Your task to perform on an android device: Search for sushi restaurants on Maps Image 0: 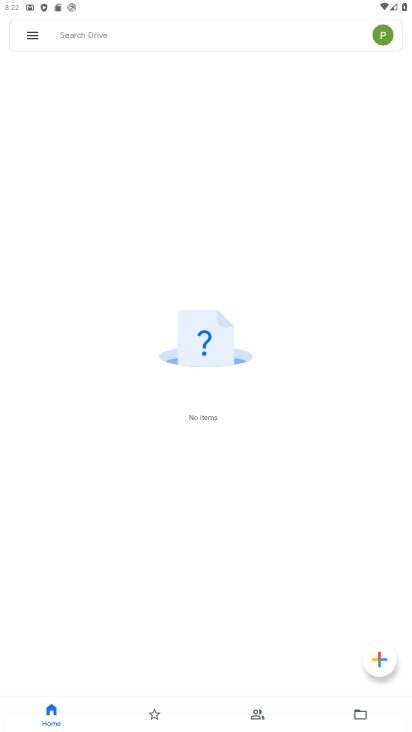
Step 0: press home button
Your task to perform on an android device: Search for sushi restaurants on Maps Image 1: 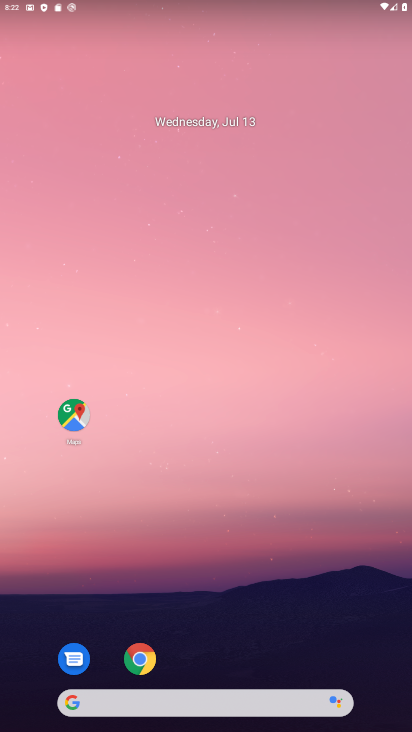
Step 1: click (60, 408)
Your task to perform on an android device: Search for sushi restaurants on Maps Image 2: 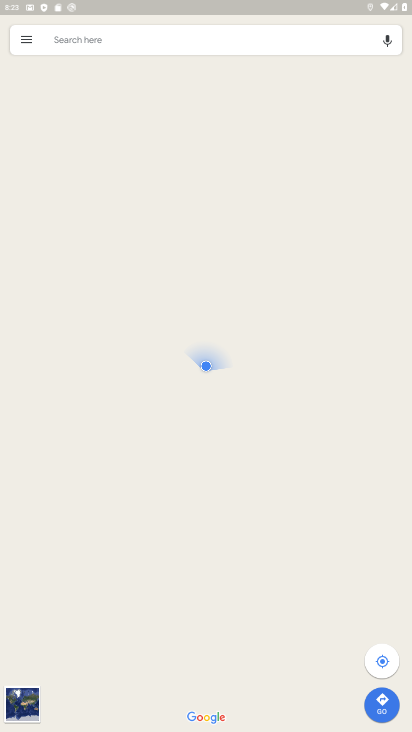
Step 2: type "sushi restaurants"
Your task to perform on an android device: Search for sushi restaurants on Maps Image 3: 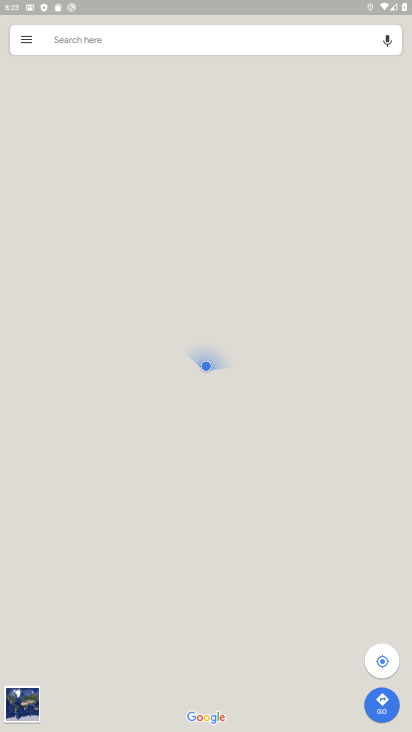
Step 3: type ""
Your task to perform on an android device: Search for sushi restaurants on Maps Image 4: 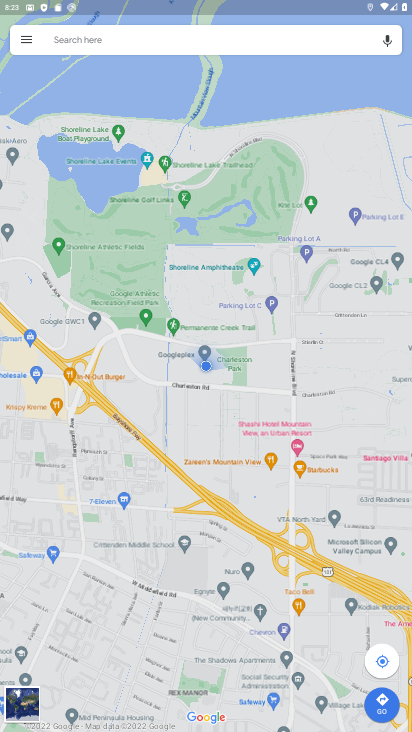
Step 4: click (69, 41)
Your task to perform on an android device: Search for sushi restaurants on Maps Image 5: 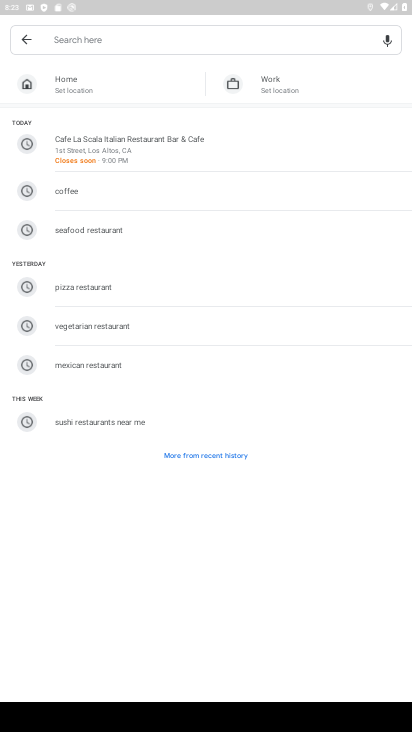
Step 5: type "sushi restaurants"
Your task to perform on an android device: Search for sushi restaurants on Maps Image 6: 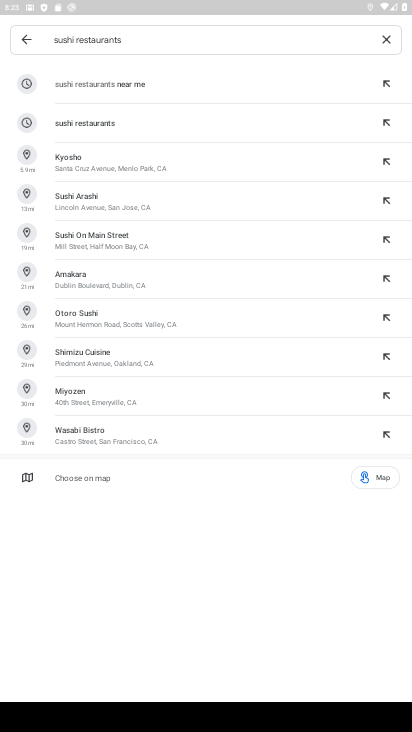
Step 6: click (90, 119)
Your task to perform on an android device: Search for sushi restaurants on Maps Image 7: 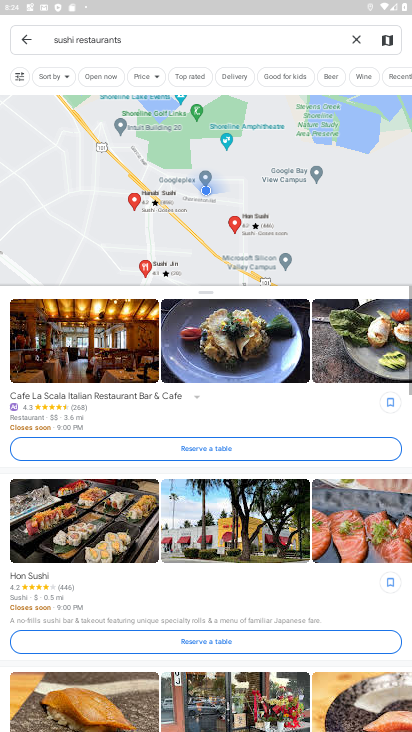
Step 7: task complete